Your task to perform on an android device: Open the stopwatch Image 0: 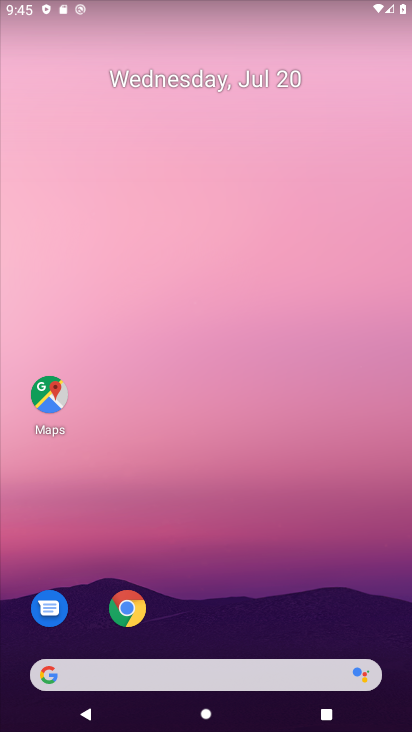
Step 0: drag from (190, 282) to (170, 139)
Your task to perform on an android device: Open the stopwatch Image 1: 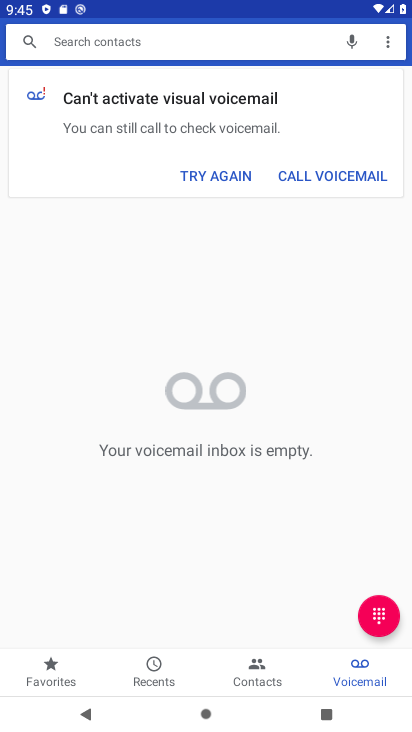
Step 1: press back button
Your task to perform on an android device: Open the stopwatch Image 2: 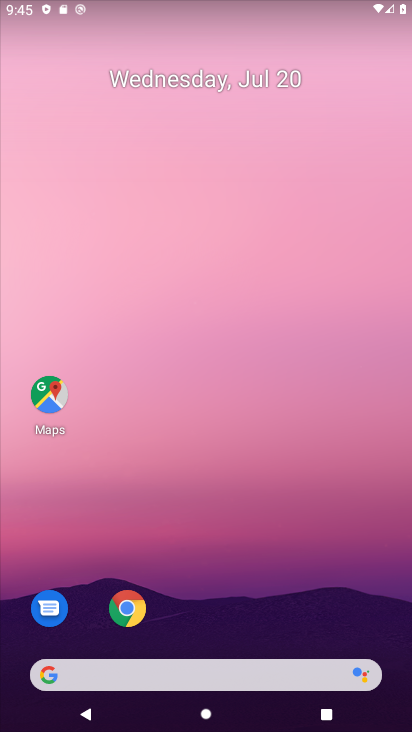
Step 2: drag from (257, 594) to (223, 341)
Your task to perform on an android device: Open the stopwatch Image 3: 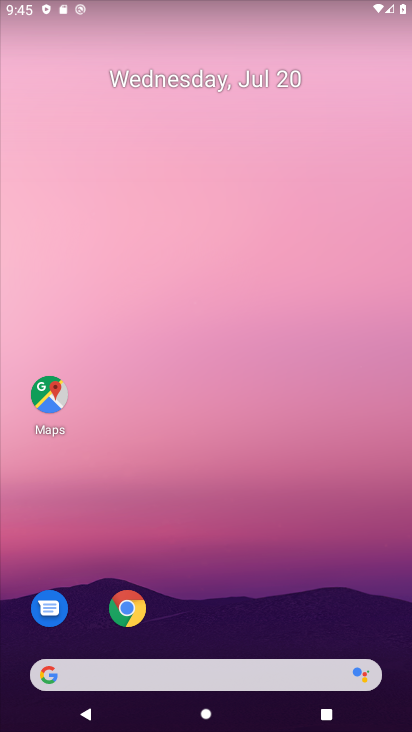
Step 3: drag from (257, 643) to (140, 241)
Your task to perform on an android device: Open the stopwatch Image 4: 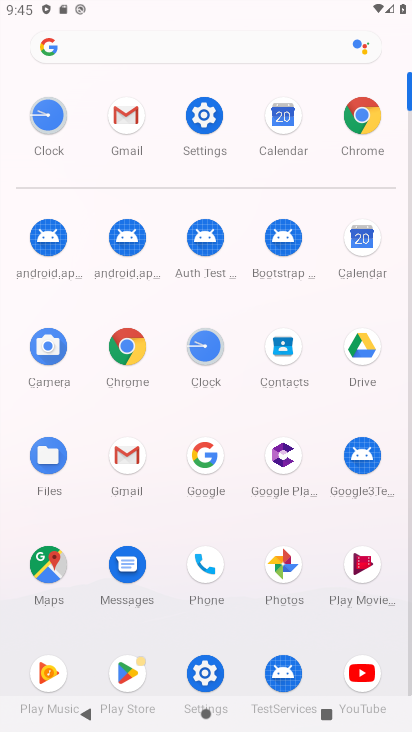
Step 4: click (211, 339)
Your task to perform on an android device: Open the stopwatch Image 5: 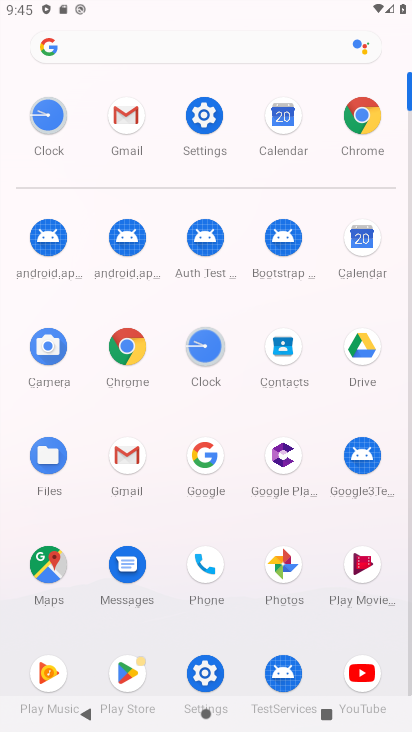
Step 5: click (211, 339)
Your task to perform on an android device: Open the stopwatch Image 6: 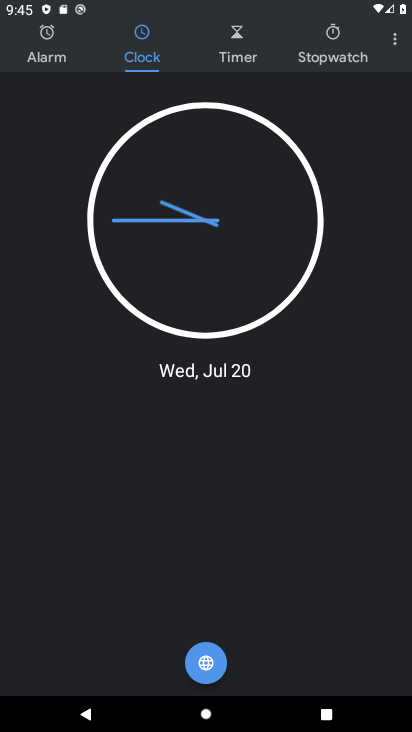
Step 6: click (333, 35)
Your task to perform on an android device: Open the stopwatch Image 7: 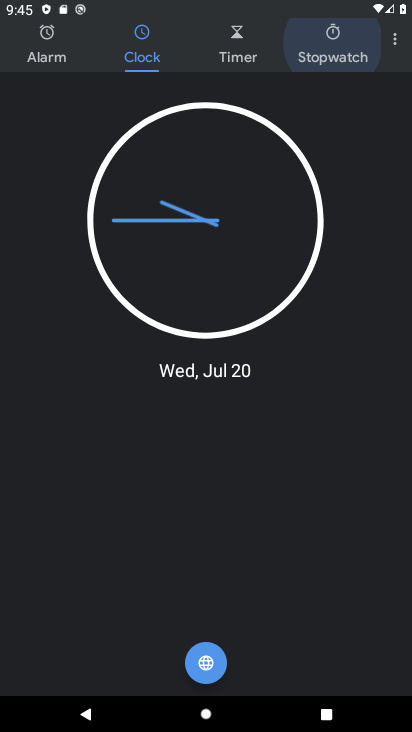
Step 7: click (336, 35)
Your task to perform on an android device: Open the stopwatch Image 8: 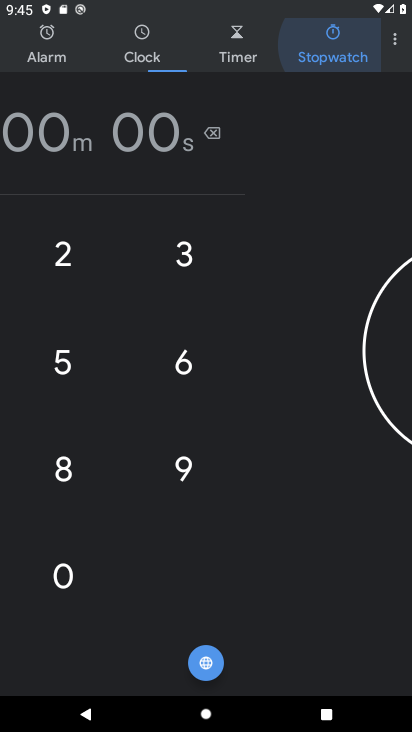
Step 8: click (340, 40)
Your task to perform on an android device: Open the stopwatch Image 9: 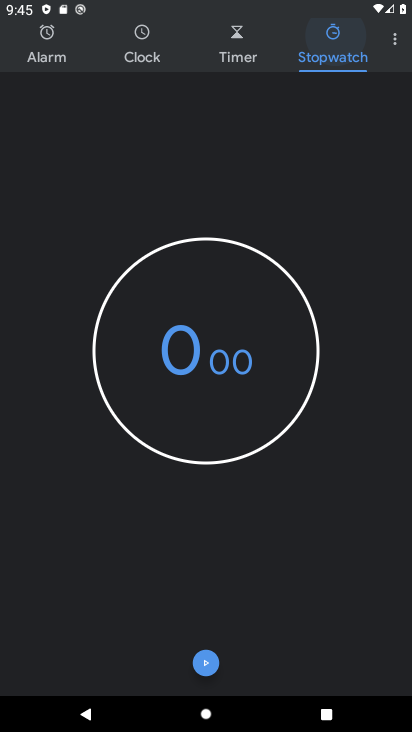
Step 9: click (340, 41)
Your task to perform on an android device: Open the stopwatch Image 10: 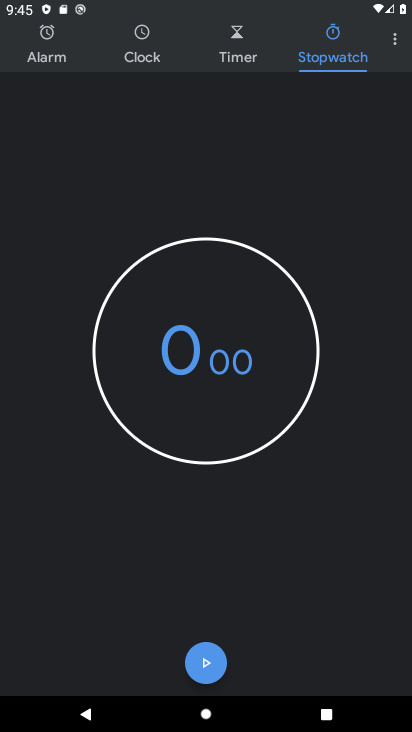
Step 10: click (207, 650)
Your task to perform on an android device: Open the stopwatch Image 11: 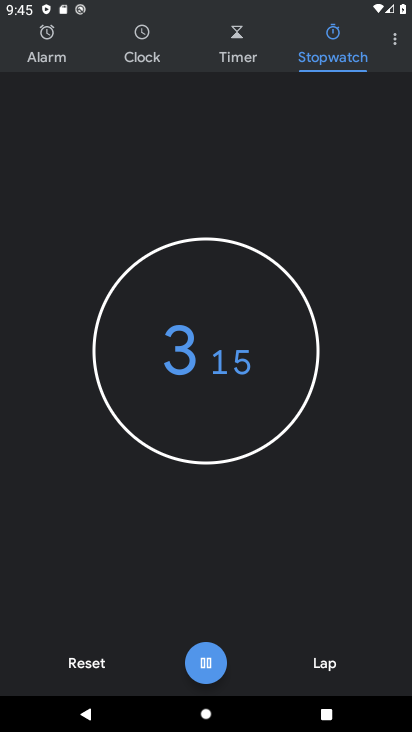
Step 11: click (209, 659)
Your task to perform on an android device: Open the stopwatch Image 12: 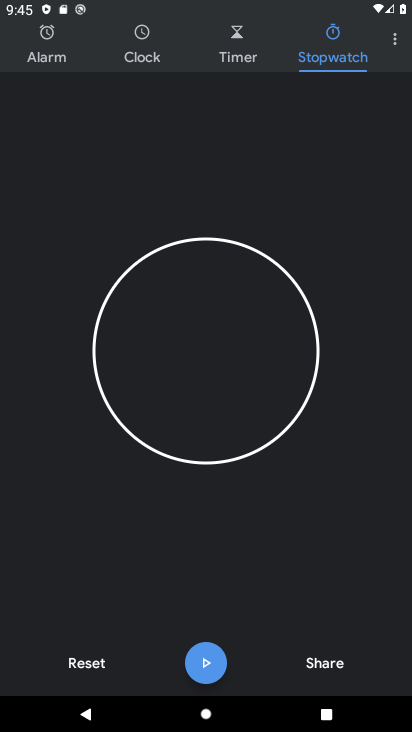
Step 12: task complete